Your task to perform on an android device: find snoozed emails in the gmail app Image 0: 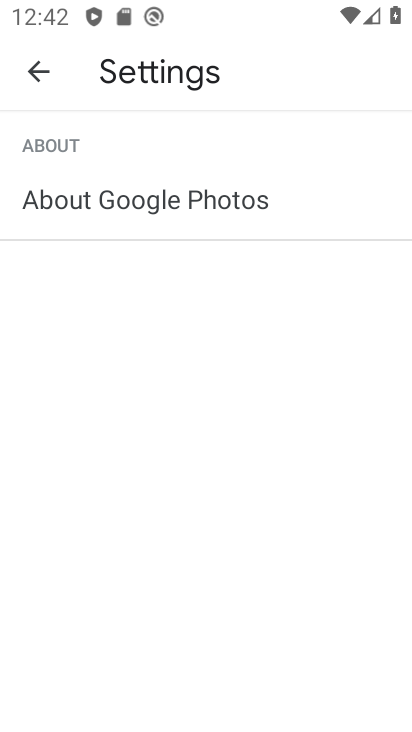
Step 0: press home button
Your task to perform on an android device: find snoozed emails in the gmail app Image 1: 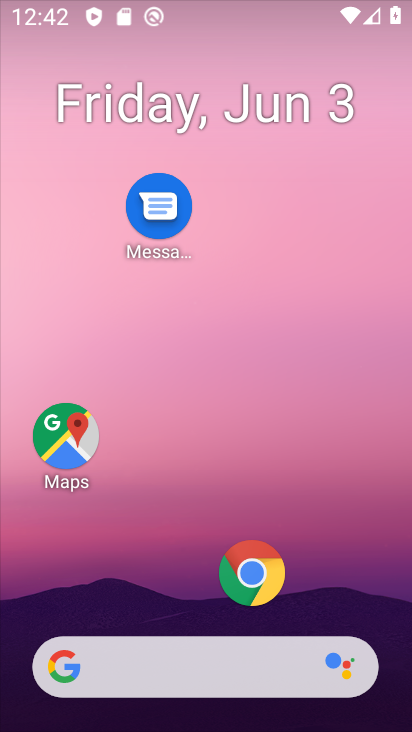
Step 1: drag from (127, 504) to (125, 87)
Your task to perform on an android device: find snoozed emails in the gmail app Image 2: 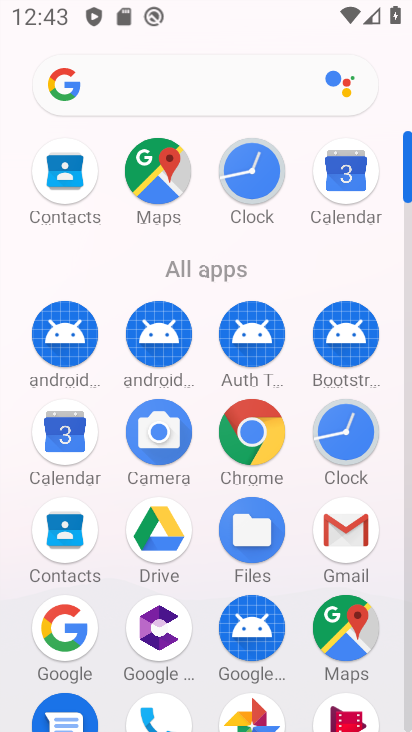
Step 2: click (345, 521)
Your task to perform on an android device: find snoozed emails in the gmail app Image 3: 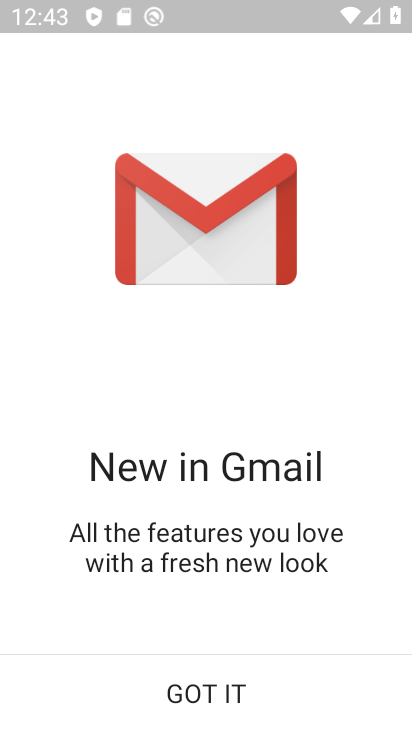
Step 3: click (165, 695)
Your task to perform on an android device: find snoozed emails in the gmail app Image 4: 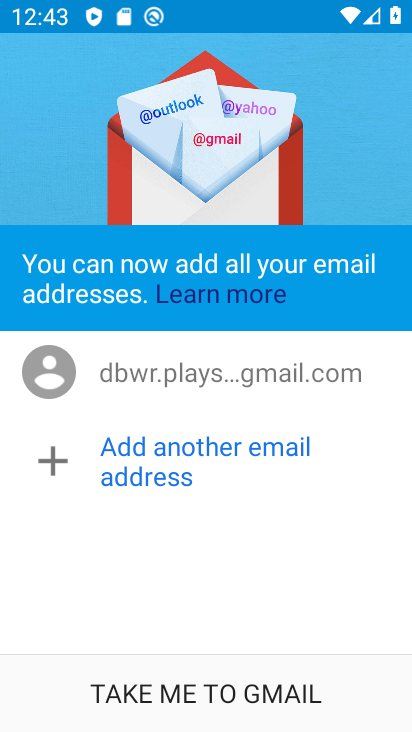
Step 4: click (156, 368)
Your task to perform on an android device: find snoozed emails in the gmail app Image 5: 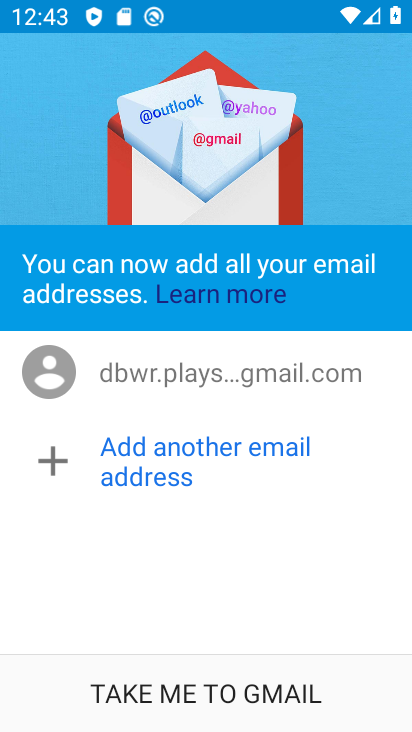
Step 5: click (168, 698)
Your task to perform on an android device: find snoozed emails in the gmail app Image 6: 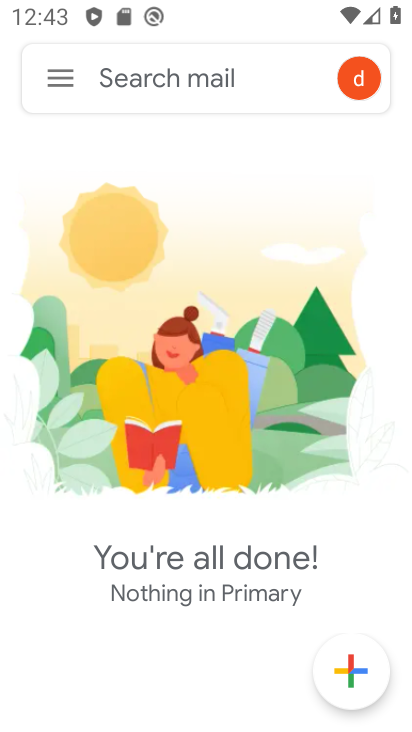
Step 6: click (64, 84)
Your task to perform on an android device: find snoozed emails in the gmail app Image 7: 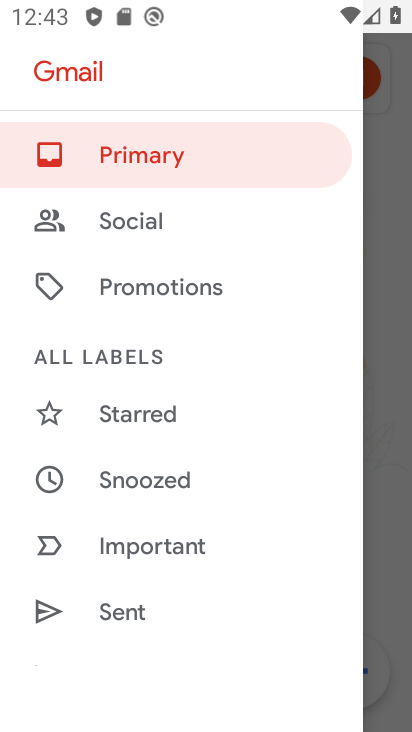
Step 7: click (153, 487)
Your task to perform on an android device: find snoozed emails in the gmail app Image 8: 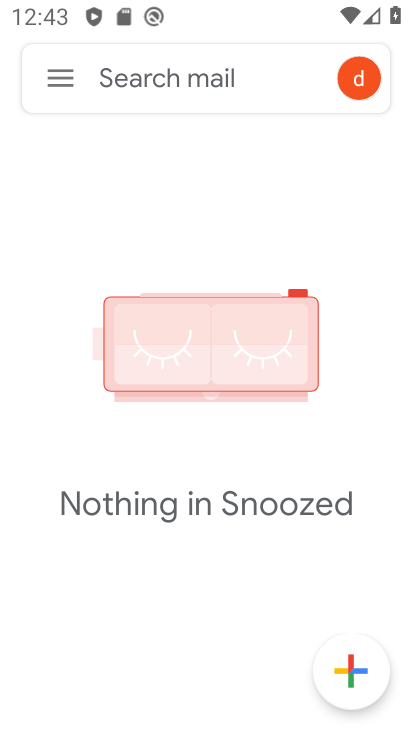
Step 8: task complete